Your task to perform on an android device: snooze an email in the gmail app Image 0: 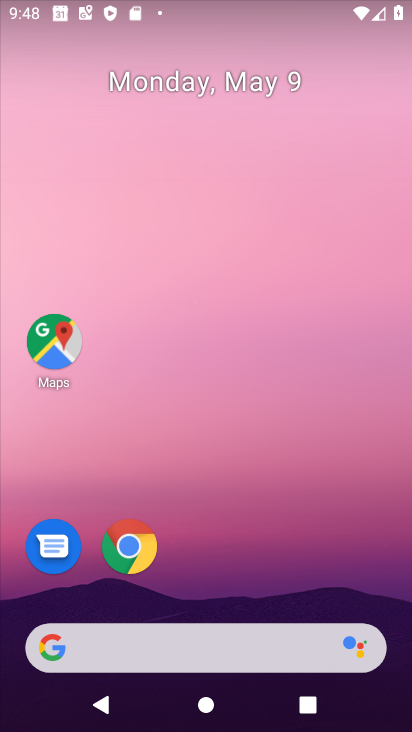
Step 0: drag from (241, 682) to (252, 194)
Your task to perform on an android device: snooze an email in the gmail app Image 1: 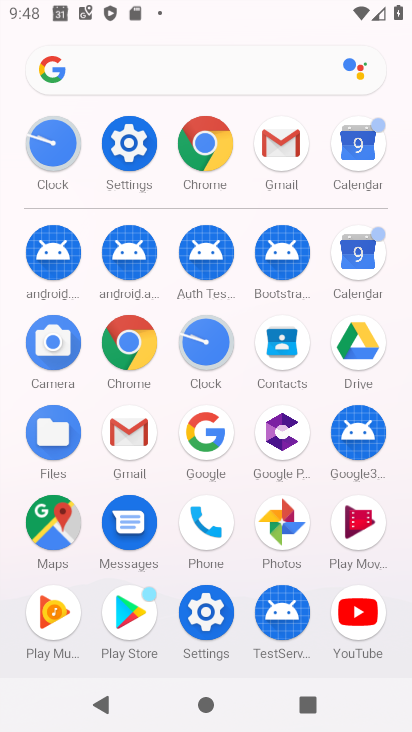
Step 1: click (283, 137)
Your task to perform on an android device: snooze an email in the gmail app Image 2: 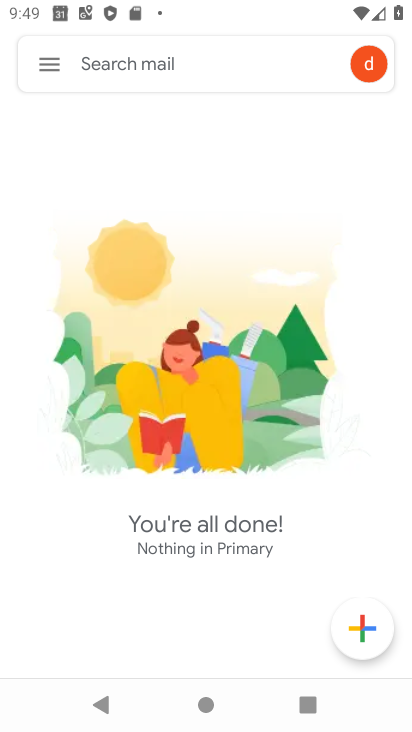
Step 2: task complete